Your task to perform on an android device: Play the last video I watched on Youtube Image 0: 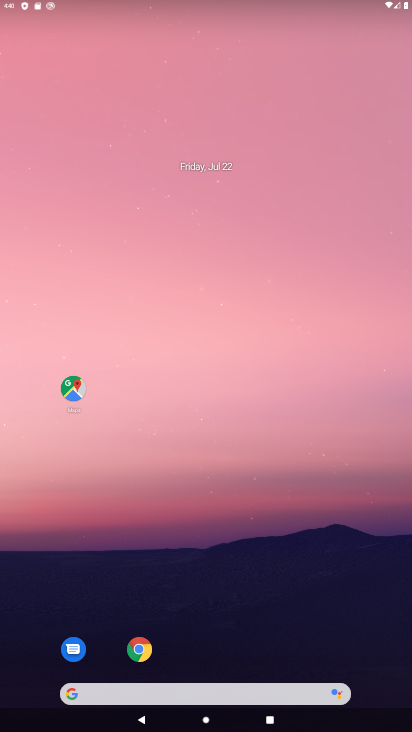
Step 0: press home button
Your task to perform on an android device: Play the last video I watched on Youtube Image 1: 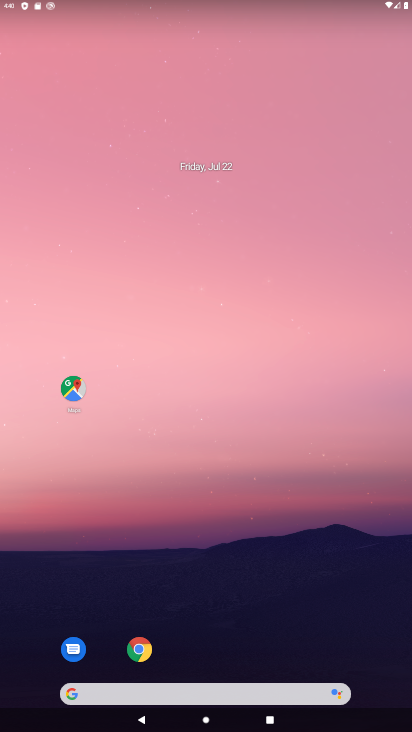
Step 1: drag from (265, 492) to (227, 77)
Your task to perform on an android device: Play the last video I watched on Youtube Image 2: 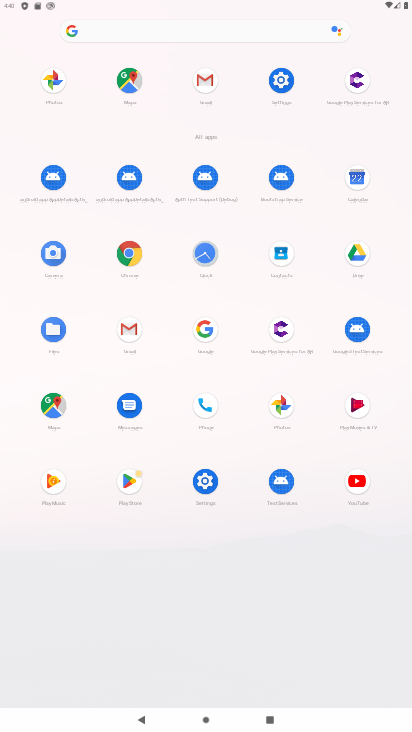
Step 2: click (362, 512)
Your task to perform on an android device: Play the last video I watched on Youtube Image 3: 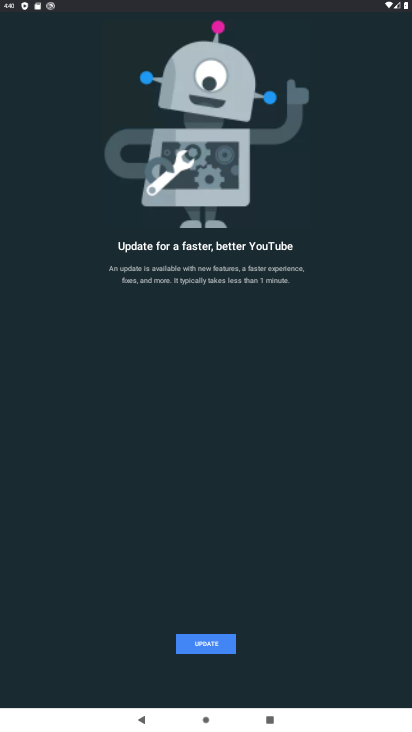
Step 3: click (223, 649)
Your task to perform on an android device: Play the last video I watched on Youtube Image 4: 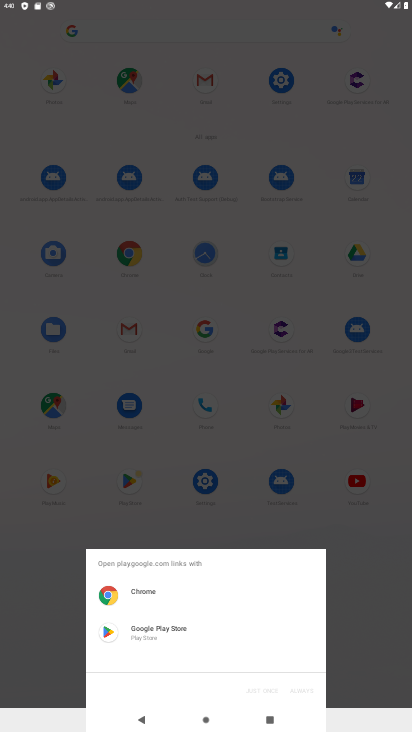
Step 4: click (215, 640)
Your task to perform on an android device: Play the last video I watched on Youtube Image 5: 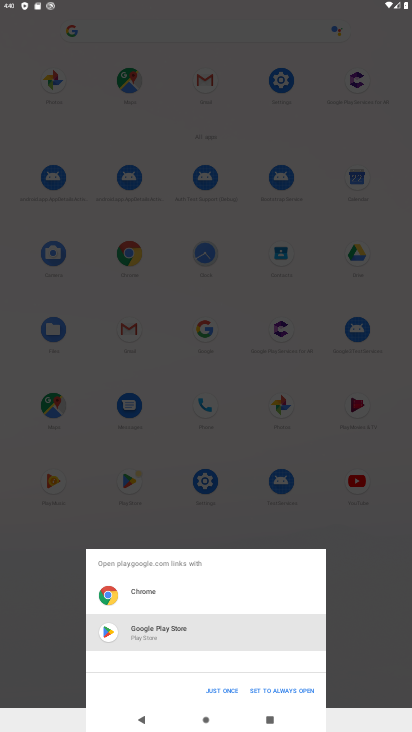
Step 5: click (217, 690)
Your task to perform on an android device: Play the last video I watched on Youtube Image 6: 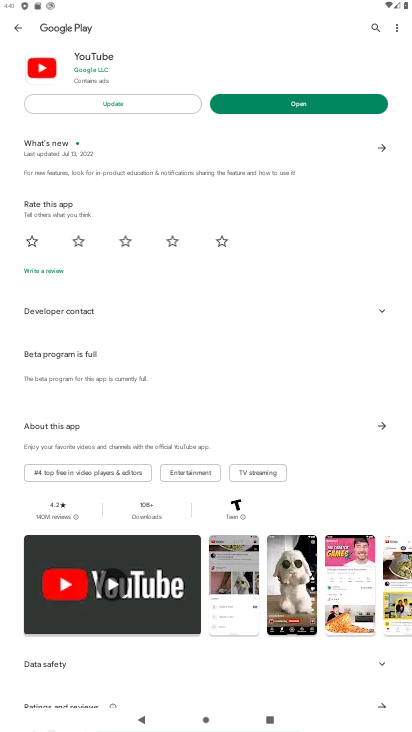
Step 6: click (146, 107)
Your task to perform on an android device: Play the last video I watched on Youtube Image 7: 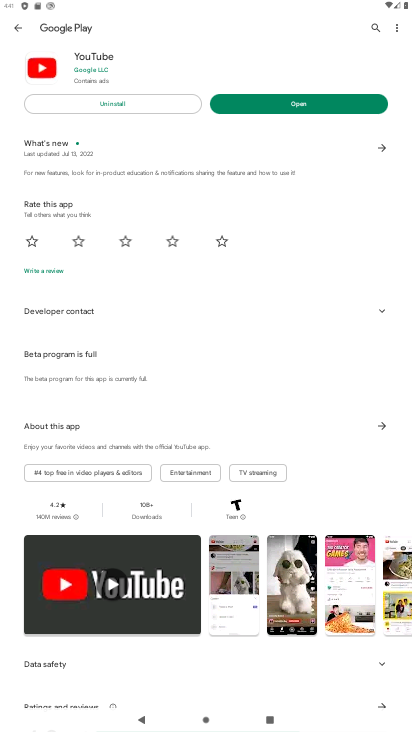
Step 7: click (368, 106)
Your task to perform on an android device: Play the last video I watched on Youtube Image 8: 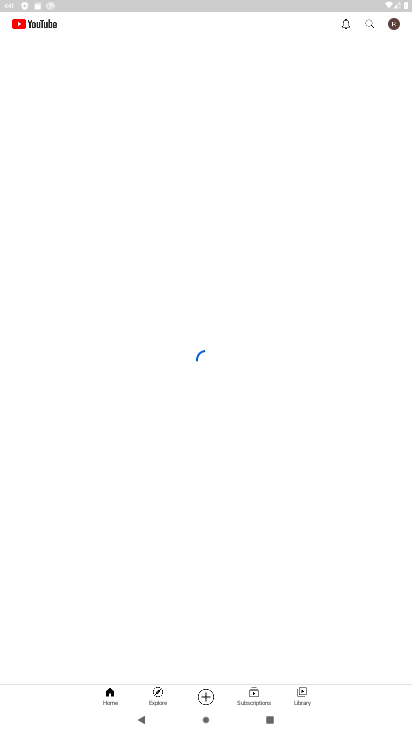
Step 8: click (300, 704)
Your task to perform on an android device: Play the last video I watched on Youtube Image 9: 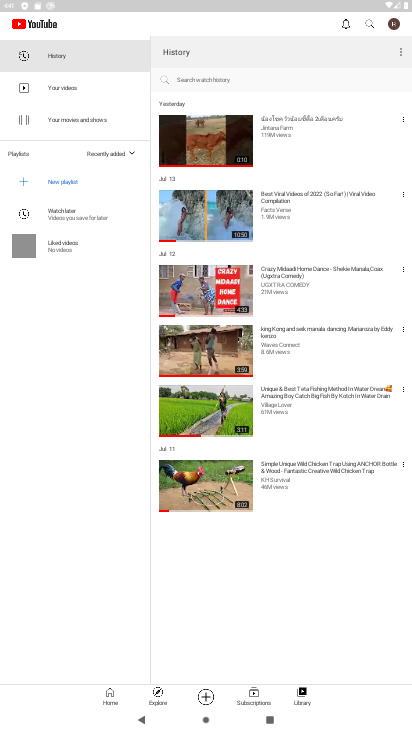
Step 9: click (279, 151)
Your task to perform on an android device: Play the last video I watched on Youtube Image 10: 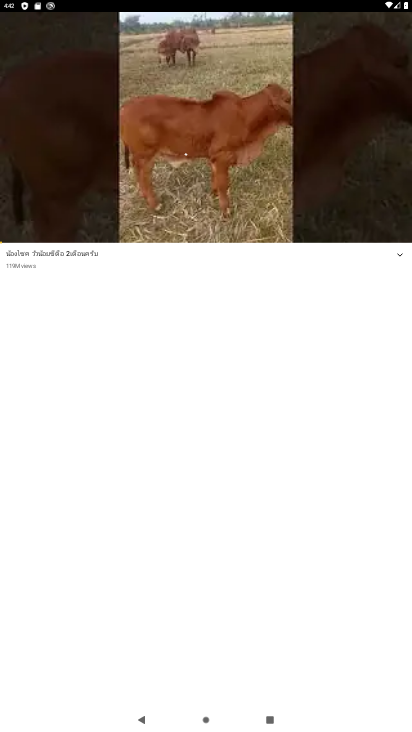
Step 10: task complete